Your task to perform on an android device: Open calendar and show me the second week of next month Image 0: 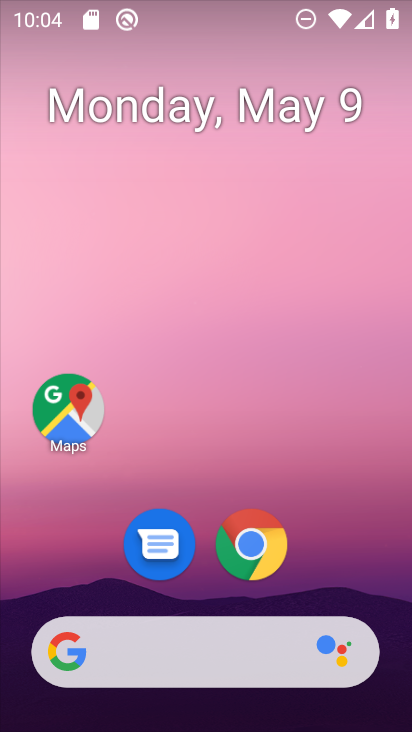
Step 0: drag from (330, 534) to (222, 80)
Your task to perform on an android device: Open calendar and show me the second week of next month Image 1: 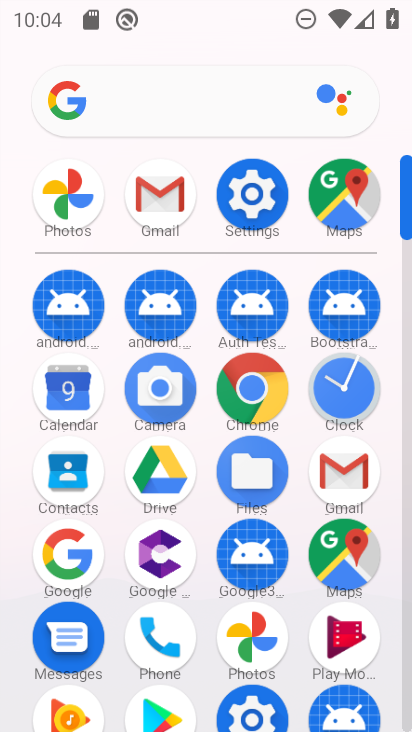
Step 1: click (68, 386)
Your task to perform on an android device: Open calendar and show me the second week of next month Image 2: 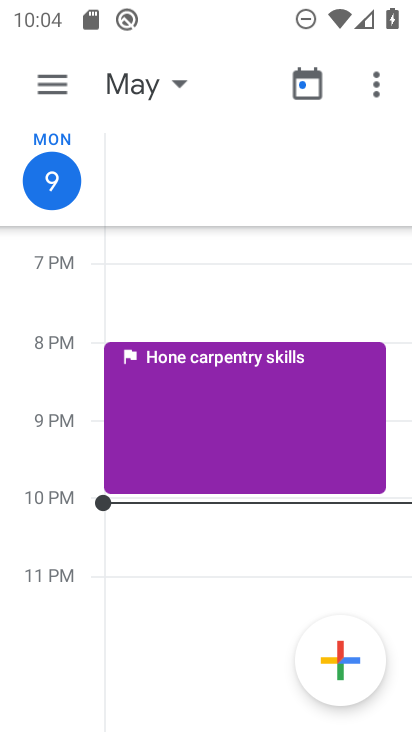
Step 2: click (47, 72)
Your task to perform on an android device: Open calendar and show me the second week of next month Image 3: 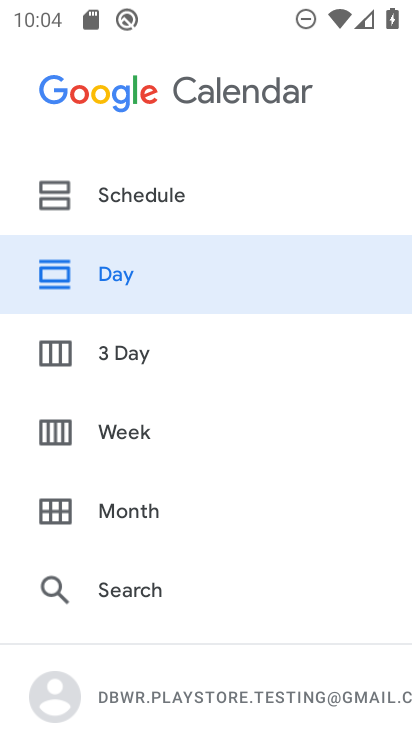
Step 3: click (126, 437)
Your task to perform on an android device: Open calendar and show me the second week of next month Image 4: 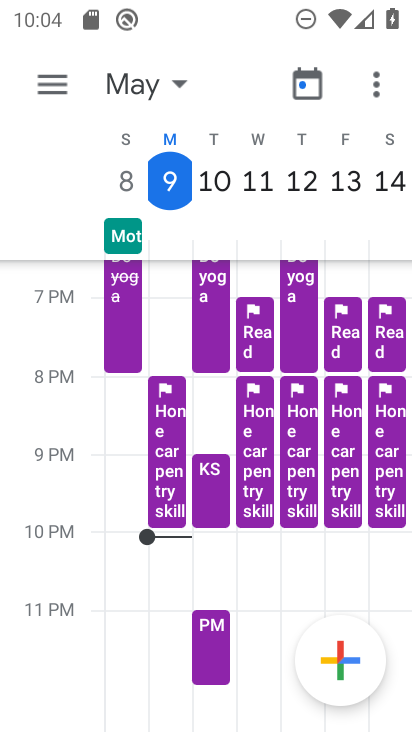
Step 4: click (180, 82)
Your task to perform on an android device: Open calendar and show me the second week of next month Image 5: 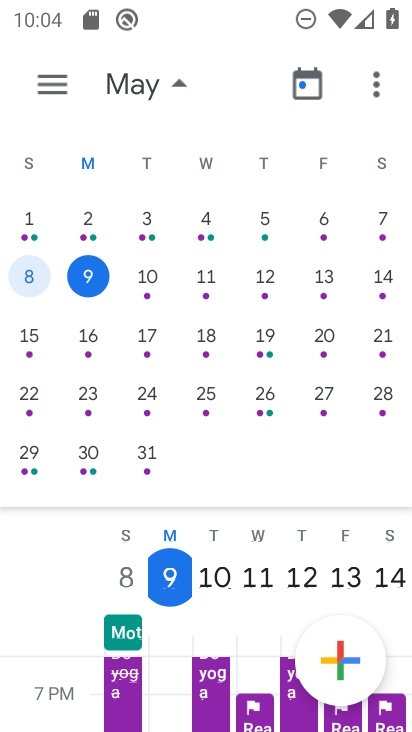
Step 5: drag from (363, 324) to (9, 286)
Your task to perform on an android device: Open calendar and show me the second week of next month Image 6: 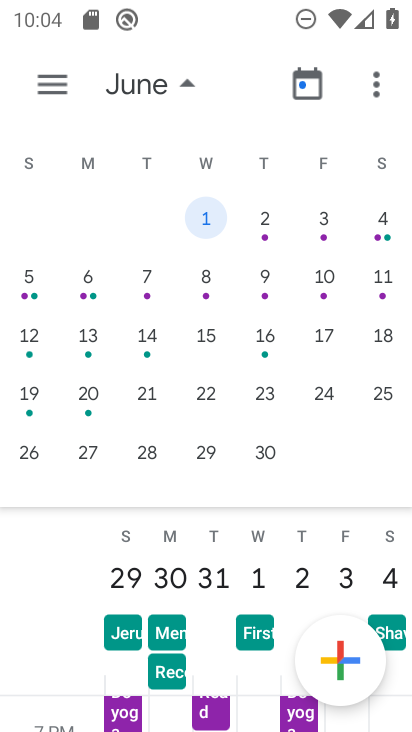
Step 6: click (197, 278)
Your task to perform on an android device: Open calendar and show me the second week of next month Image 7: 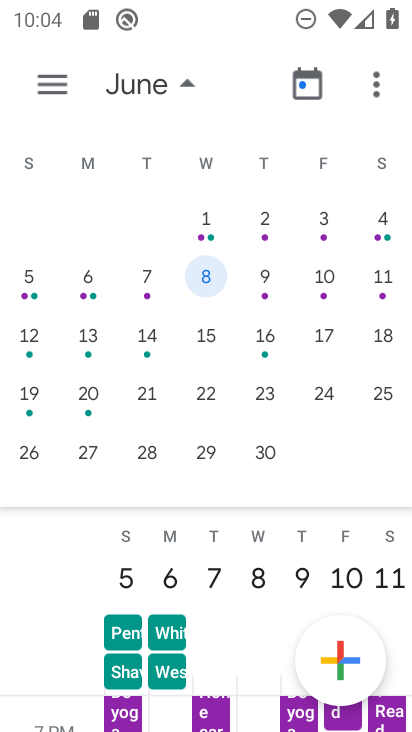
Step 7: task complete